Your task to perform on an android device: turn on wifi Image 0: 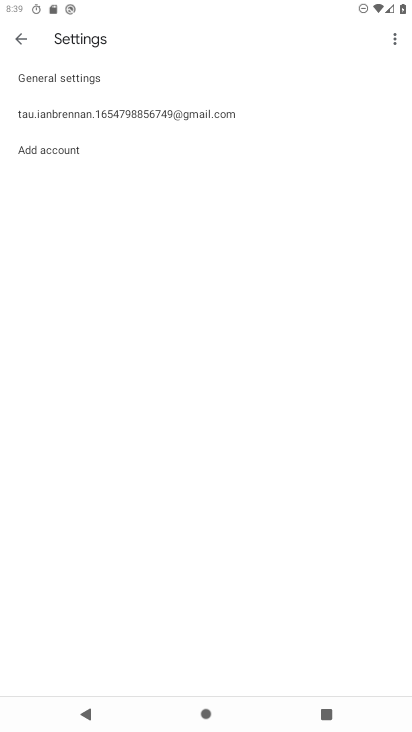
Step 0: press home button
Your task to perform on an android device: turn on wifi Image 1: 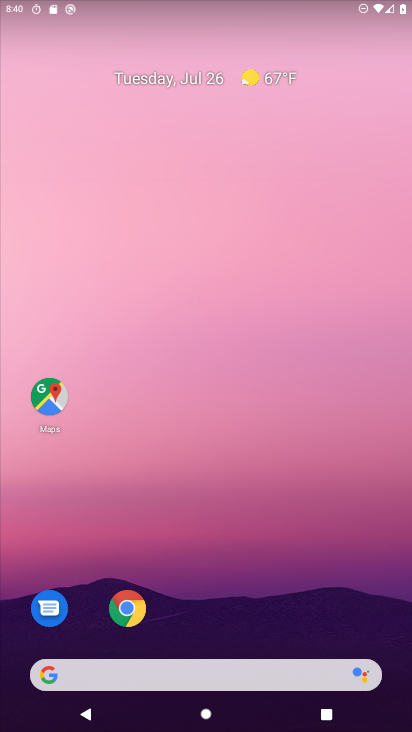
Step 1: drag from (212, 636) to (273, 64)
Your task to perform on an android device: turn on wifi Image 2: 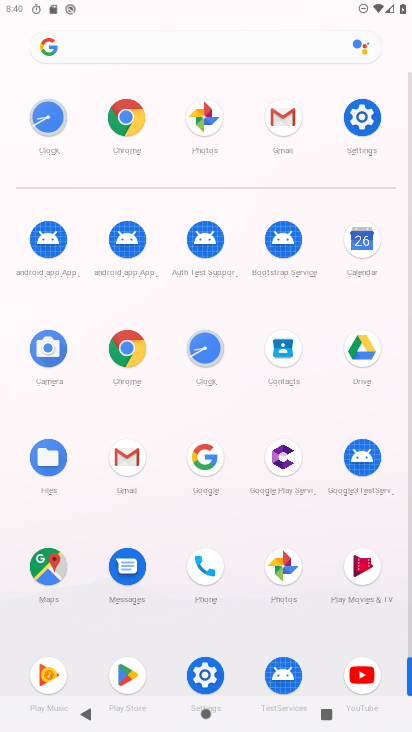
Step 2: drag from (202, 592) to (227, 452)
Your task to perform on an android device: turn on wifi Image 3: 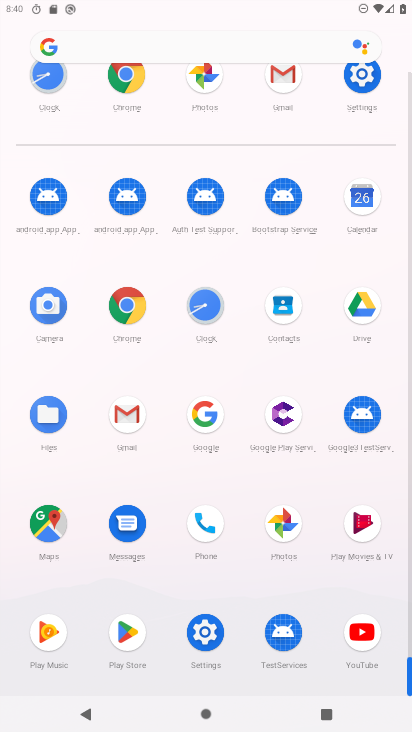
Step 3: click (211, 656)
Your task to perform on an android device: turn on wifi Image 4: 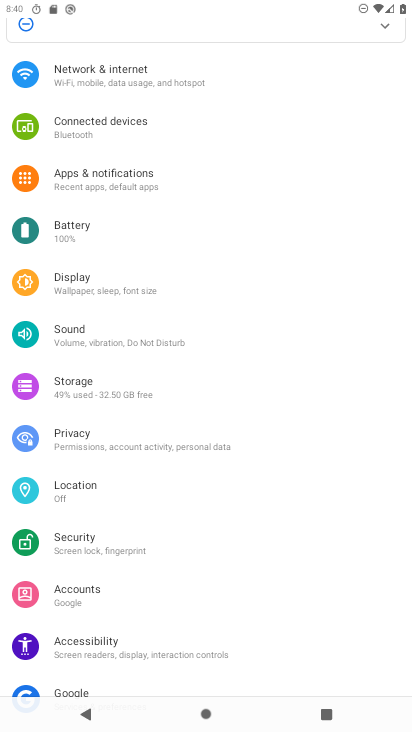
Step 4: click (135, 75)
Your task to perform on an android device: turn on wifi Image 5: 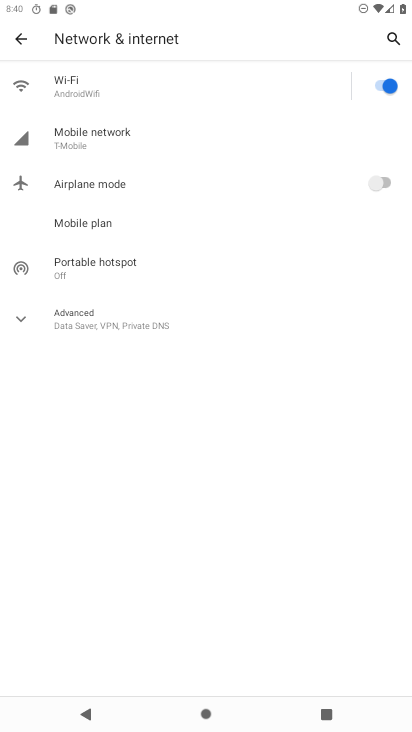
Step 5: task complete